Your task to perform on an android device: create a new album in the google photos Image 0: 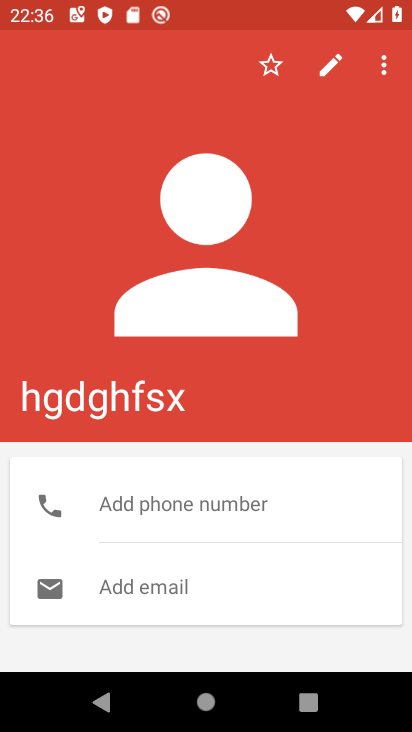
Step 0: press home button
Your task to perform on an android device: create a new album in the google photos Image 1: 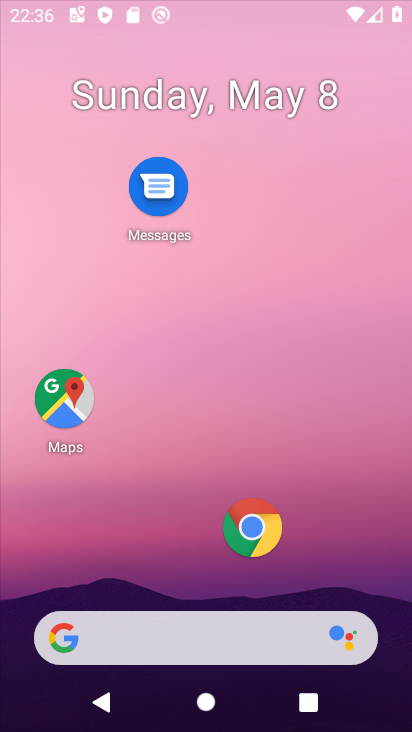
Step 1: drag from (197, 566) to (268, 53)
Your task to perform on an android device: create a new album in the google photos Image 2: 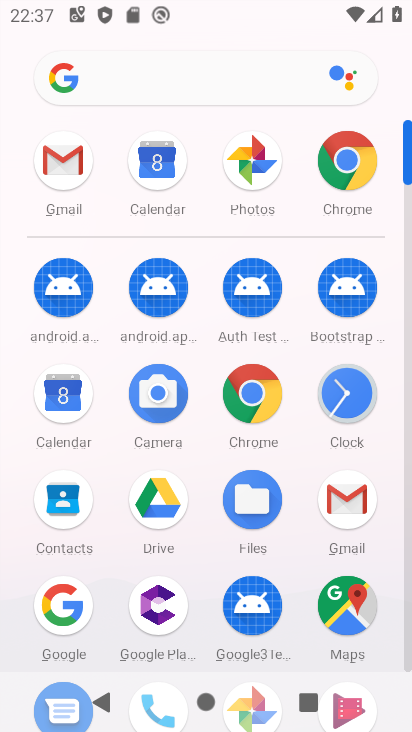
Step 2: click (254, 159)
Your task to perform on an android device: create a new album in the google photos Image 3: 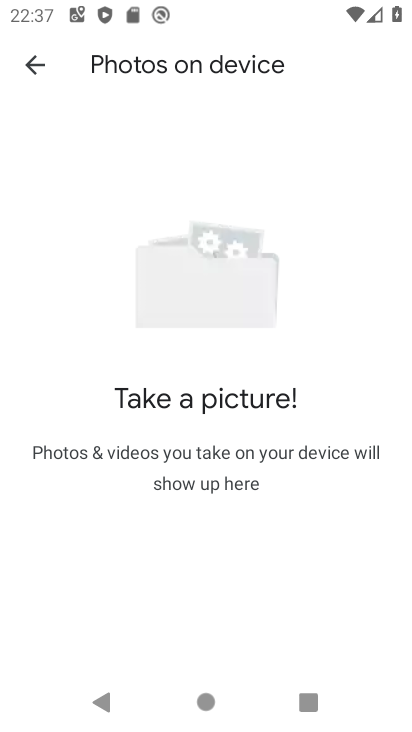
Step 3: press back button
Your task to perform on an android device: create a new album in the google photos Image 4: 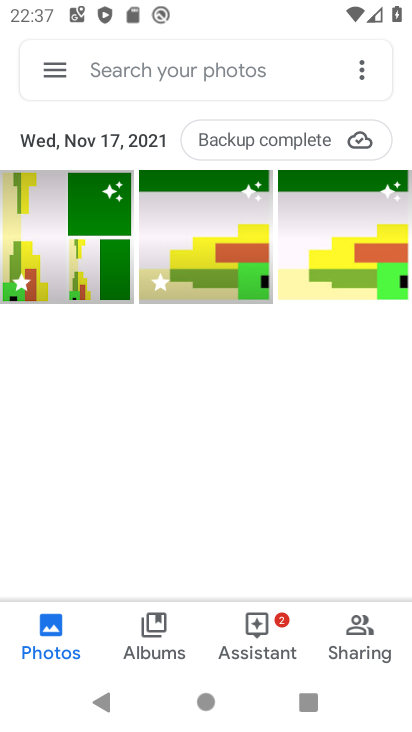
Step 4: click (153, 649)
Your task to perform on an android device: create a new album in the google photos Image 5: 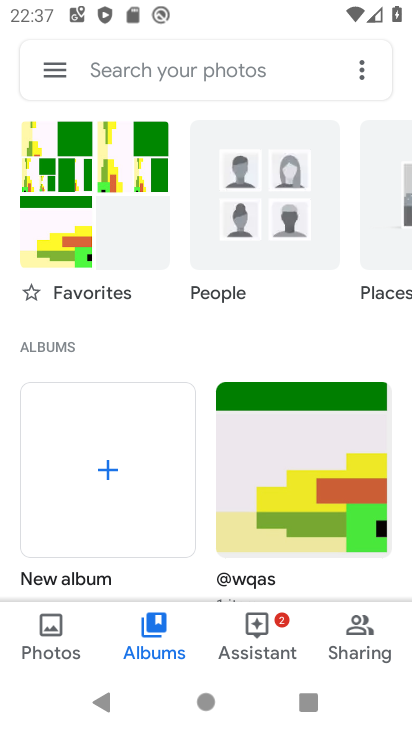
Step 5: click (95, 479)
Your task to perform on an android device: create a new album in the google photos Image 6: 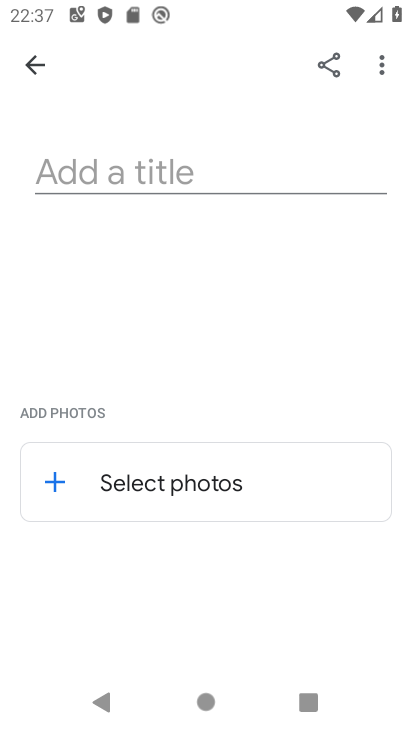
Step 6: click (183, 182)
Your task to perform on an android device: create a new album in the google photos Image 7: 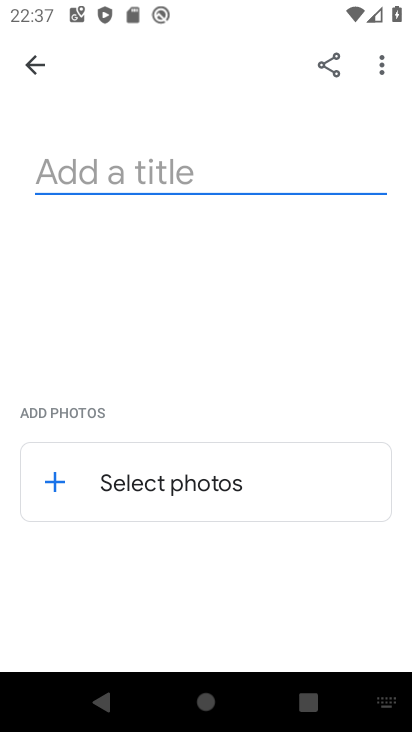
Step 7: type "bgffgg"
Your task to perform on an android device: create a new album in the google photos Image 8: 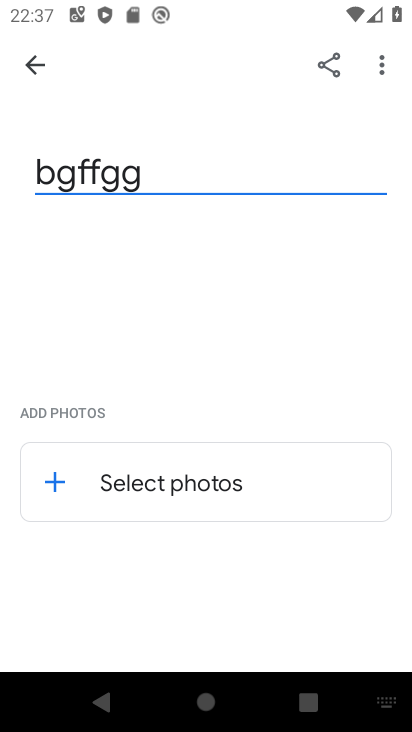
Step 8: click (50, 484)
Your task to perform on an android device: create a new album in the google photos Image 9: 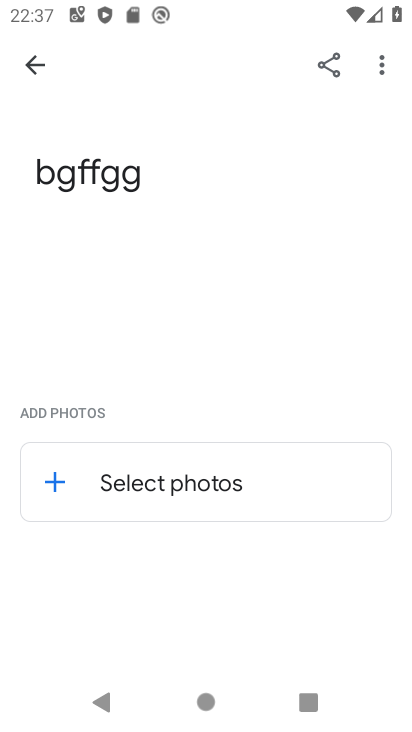
Step 9: click (54, 481)
Your task to perform on an android device: create a new album in the google photos Image 10: 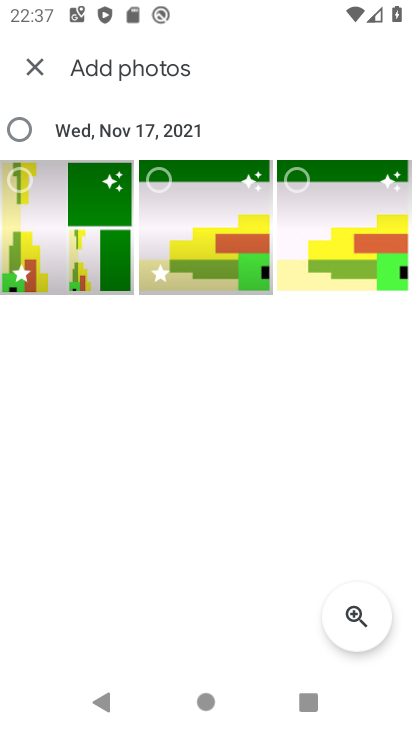
Step 10: click (17, 180)
Your task to perform on an android device: create a new album in the google photos Image 11: 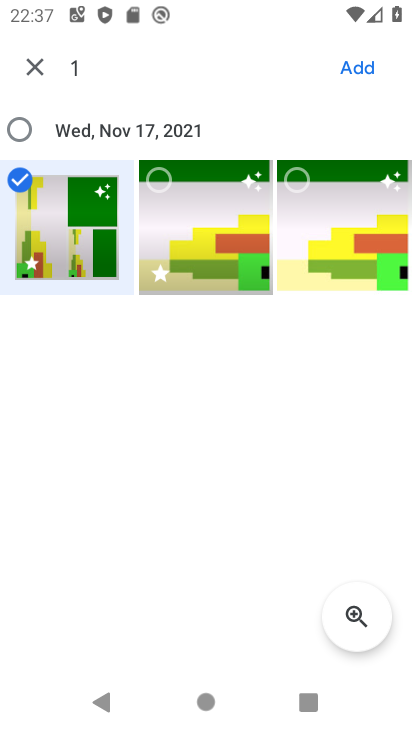
Step 11: click (346, 73)
Your task to perform on an android device: create a new album in the google photos Image 12: 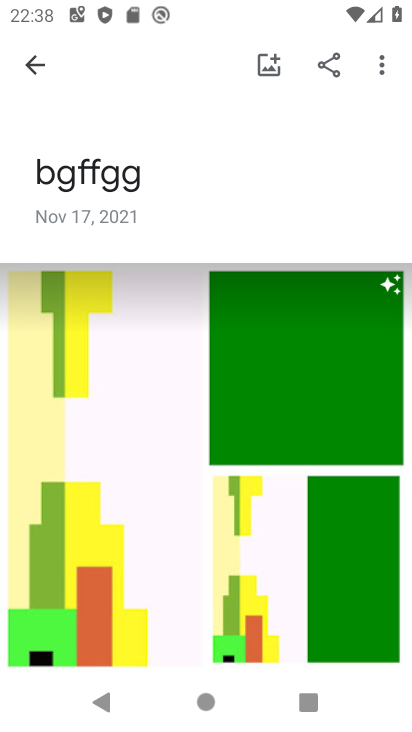
Step 12: task complete